Your task to perform on an android device: Search for seafood restaurants on Google Maps Image 0: 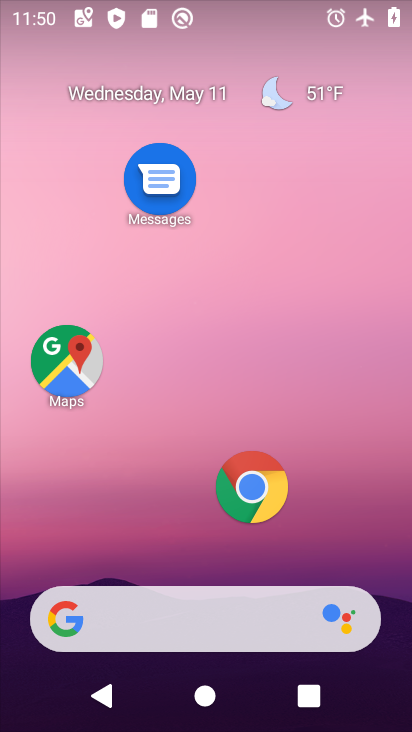
Step 0: click (33, 381)
Your task to perform on an android device: Search for seafood restaurants on Google Maps Image 1: 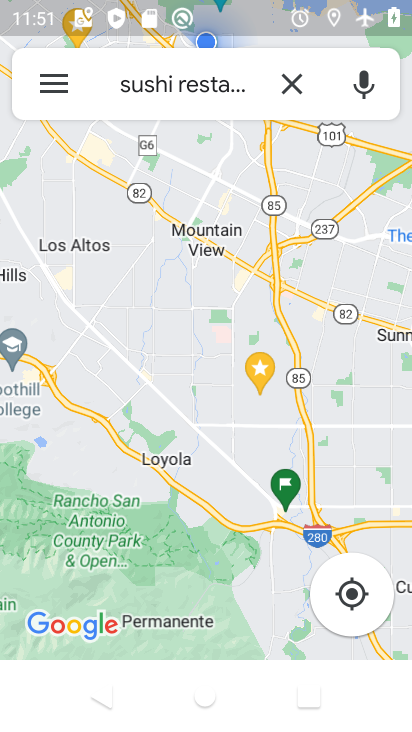
Step 1: click (278, 92)
Your task to perform on an android device: Search for seafood restaurants on Google Maps Image 2: 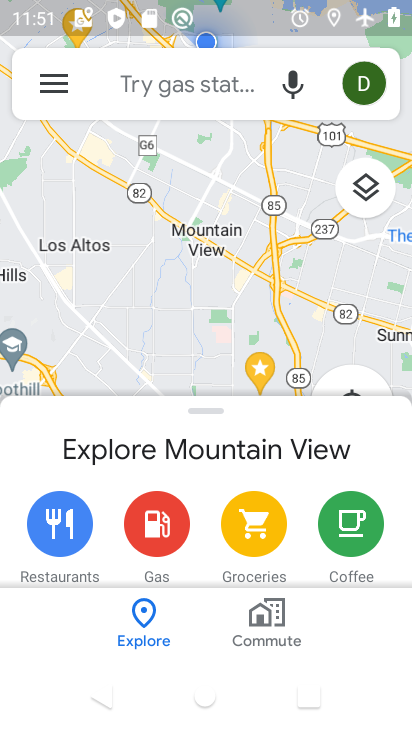
Step 2: click (210, 92)
Your task to perform on an android device: Search for seafood restaurants on Google Maps Image 3: 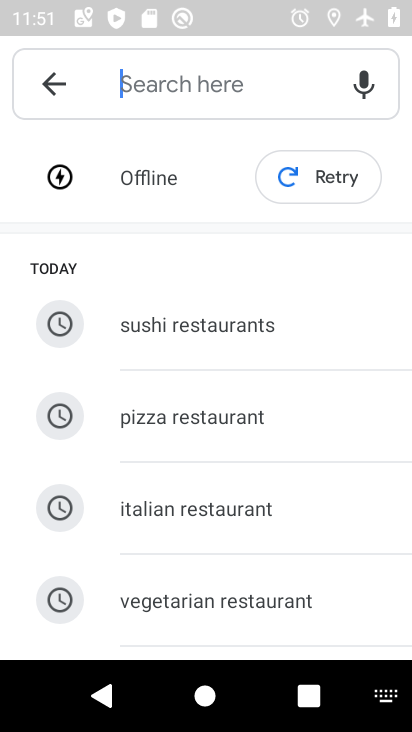
Step 3: type "seafood restaurants"
Your task to perform on an android device: Search for seafood restaurants on Google Maps Image 4: 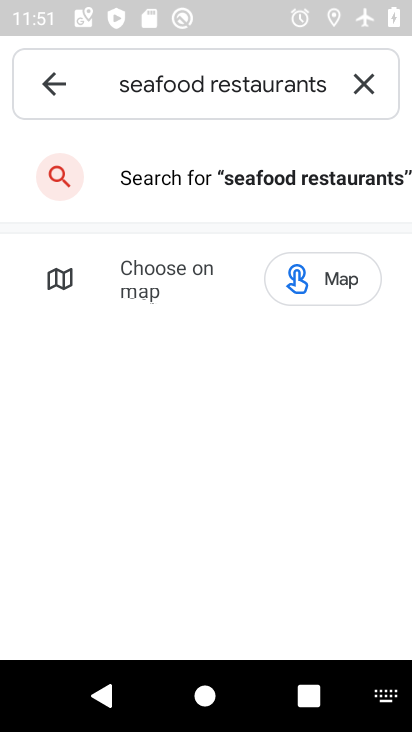
Step 4: click (267, 178)
Your task to perform on an android device: Search for seafood restaurants on Google Maps Image 5: 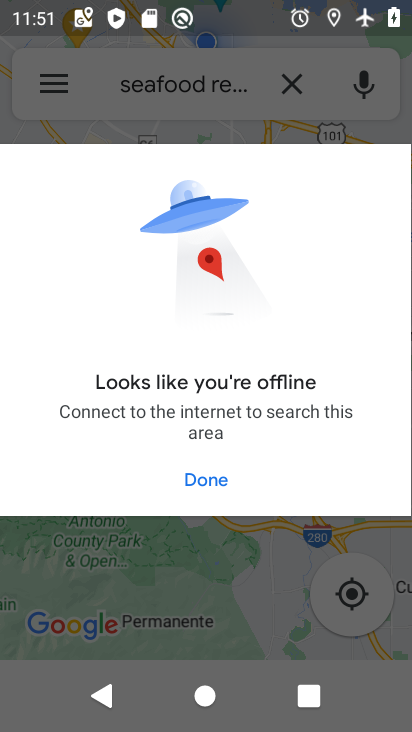
Step 5: task complete